Your task to perform on an android device: turn on improve location accuracy Image 0: 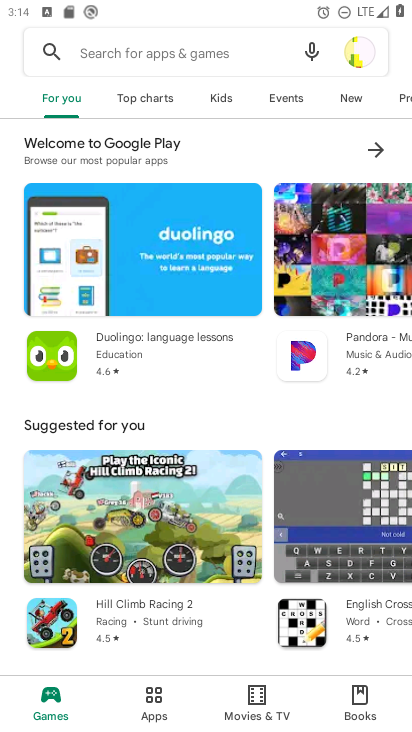
Step 0: press home button
Your task to perform on an android device: turn on improve location accuracy Image 1: 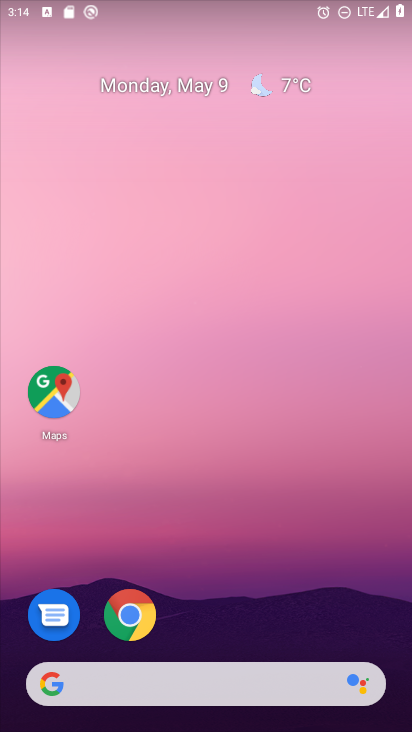
Step 1: drag from (351, 622) to (278, 56)
Your task to perform on an android device: turn on improve location accuracy Image 2: 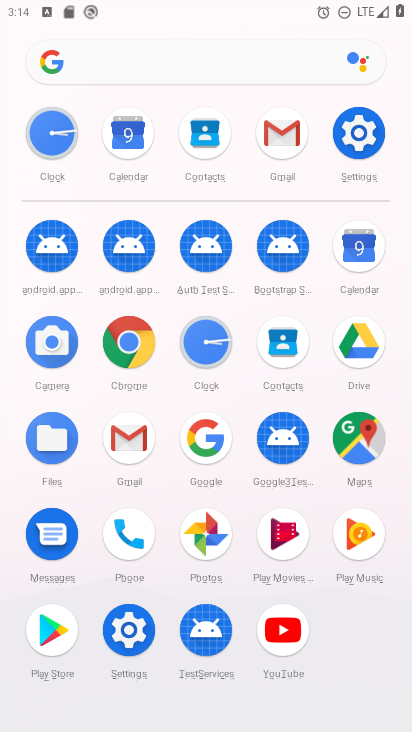
Step 2: click (124, 631)
Your task to perform on an android device: turn on improve location accuracy Image 3: 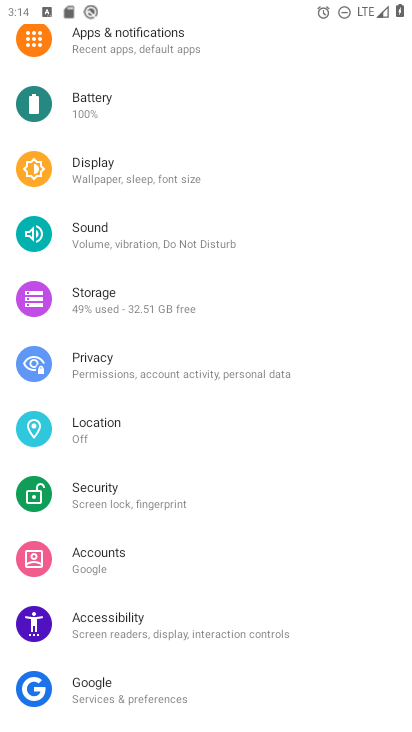
Step 3: click (99, 436)
Your task to perform on an android device: turn on improve location accuracy Image 4: 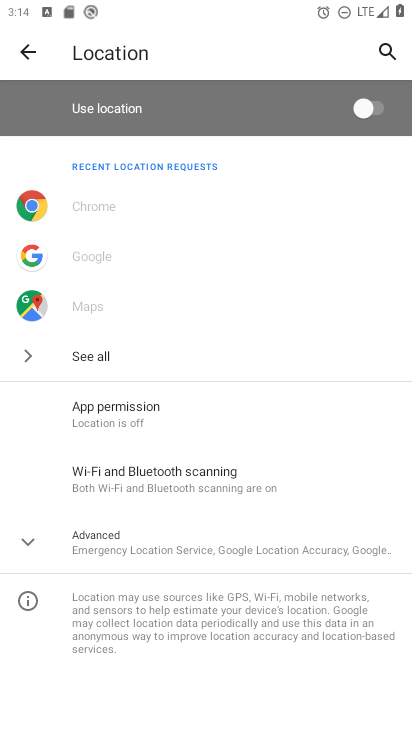
Step 4: click (30, 540)
Your task to perform on an android device: turn on improve location accuracy Image 5: 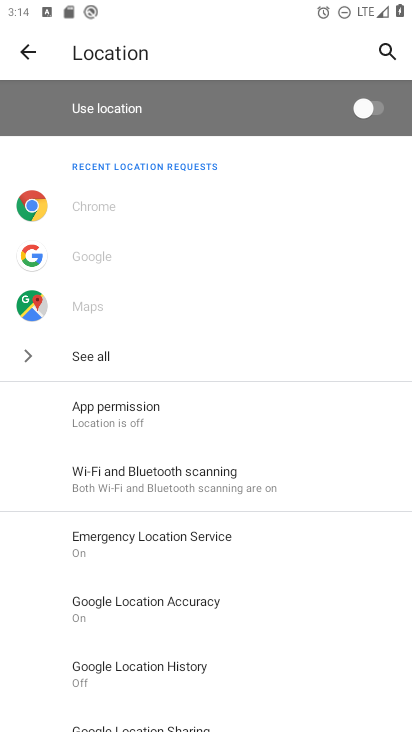
Step 5: click (156, 595)
Your task to perform on an android device: turn on improve location accuracy Image 6: 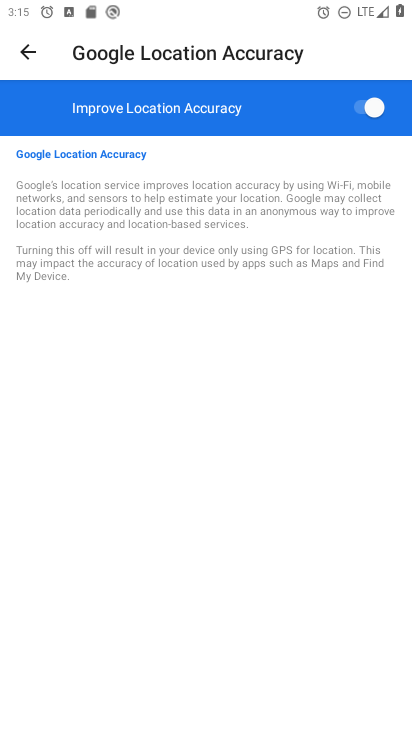
Step 6: task complete